Your task to perform on an android device: Open Chrome and go to settings Image 0: 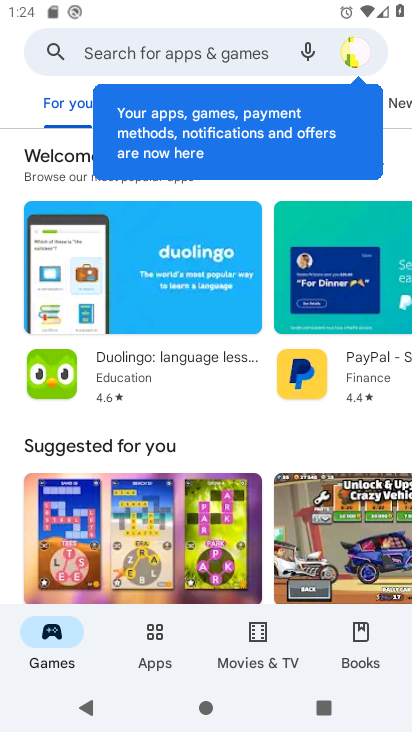
Step 0: press back button
Your task to perform on an android device: Open Chrome and go to settings Image 1: 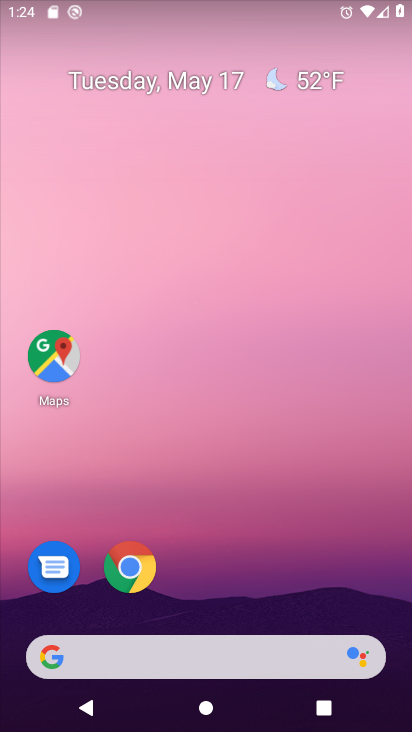
Step 1: click (139, 571)
Your task to perform on an android device: Open Chrome and go to settings Image 2: 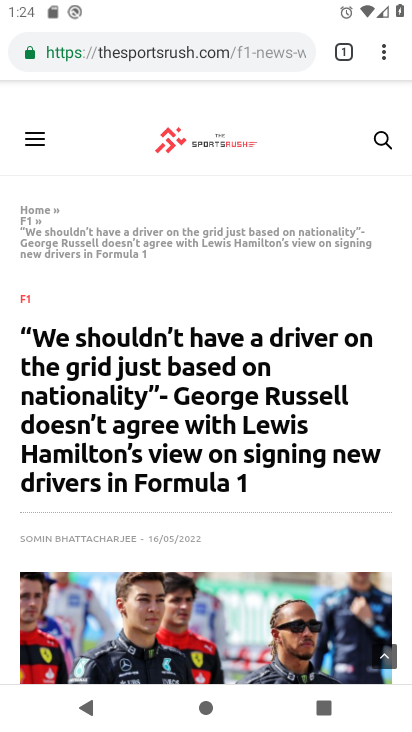
Step 2: click (386, 54)
Your task to perform on an android device: Open Chrome and go to settings Image 3: 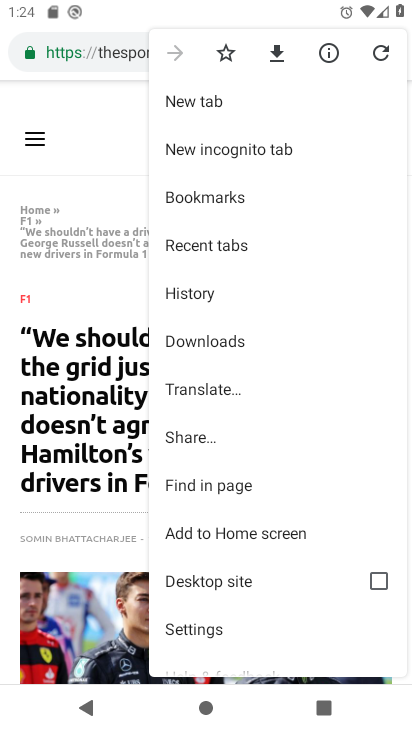
Step 3: click (204, 641)
Your task to perform on an android device: Open Chrome and go to settings Image 4: 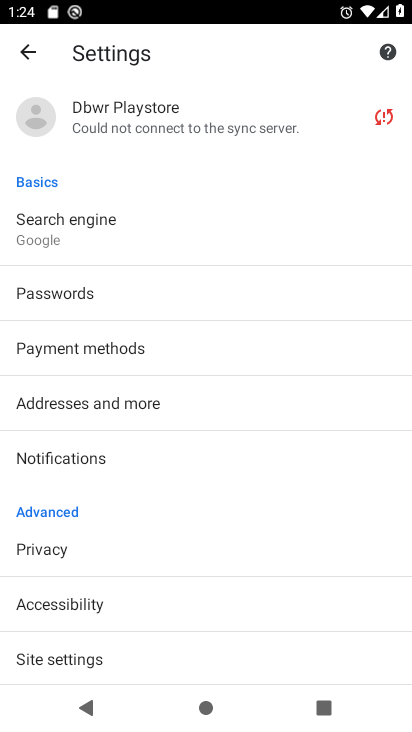
Step 4: task complete